Your task to perform on an android device: Show me popular games on the Play Store Image 0: 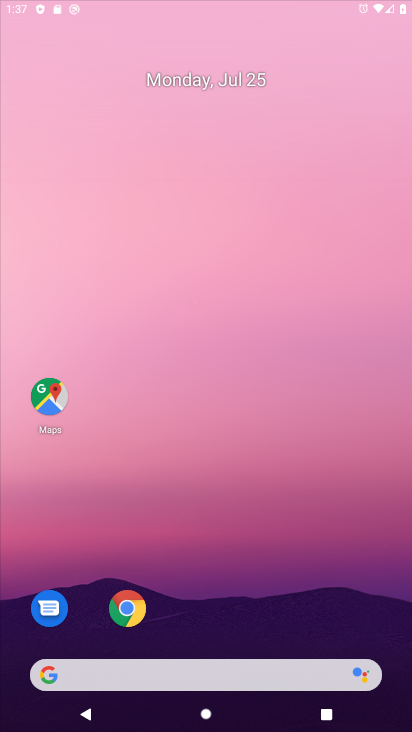
Step 0: drag from (305, 575) to (239, 2)
Your task to perform on an android device: Show me popular games on the Play Store Image 1: 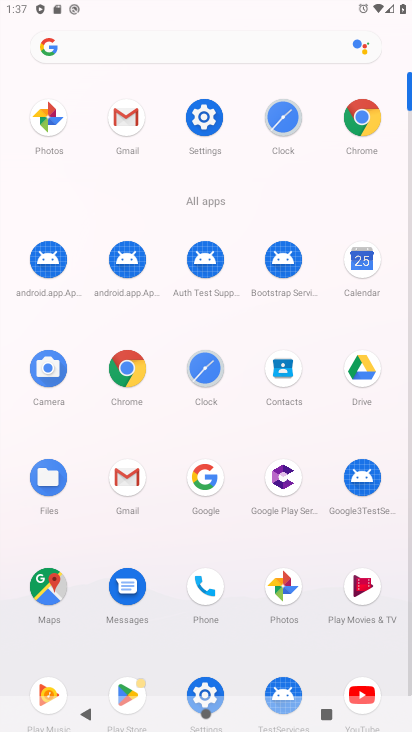
Step 1: click (120, 685)
Your task to perform on an android device: Show me popular games on the Play Store Image 2: 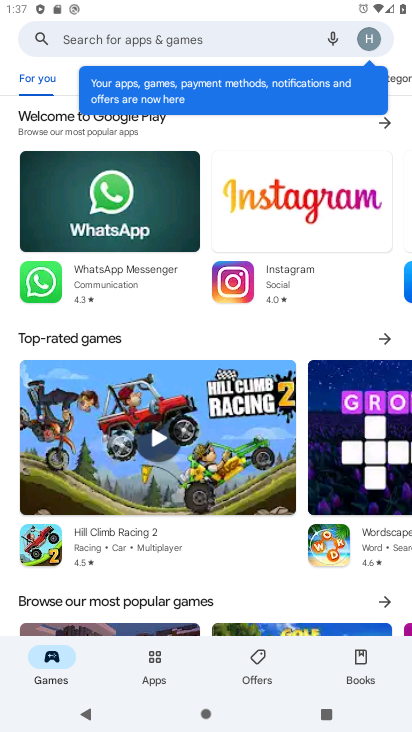
Step 2: drag from (269, 546) to (297, 23)
Your task to perform on an android device: Show me popular games on the Play Store Image 3: 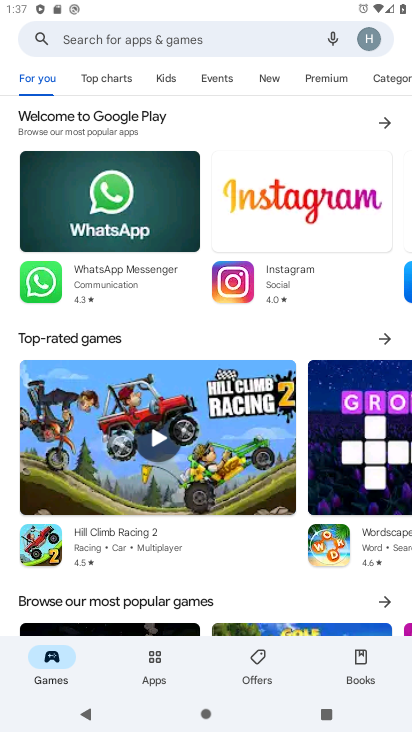
Step 3: drag from (263, 597) to (349, 116)
Your task to perform on an android device: Show me popular games on the Play Store Image 4: 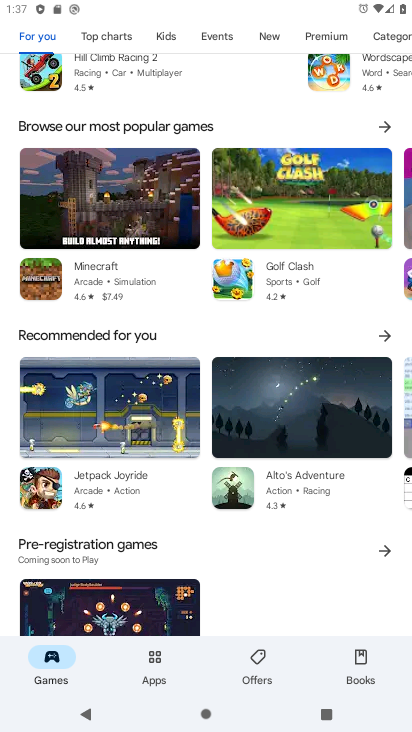
Step 4: drag from (297, 613) to (366, 192)
Your task to perform on an android device: Show me popular games on the Play Store Image 5: 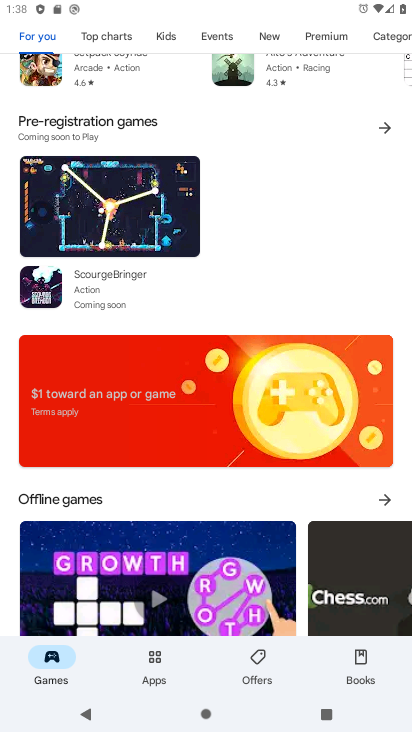
Step 5: drag from (283, 524) to (328, 196)
Your task to perform on an android device: Show me popular games on the Play Store Image 6: 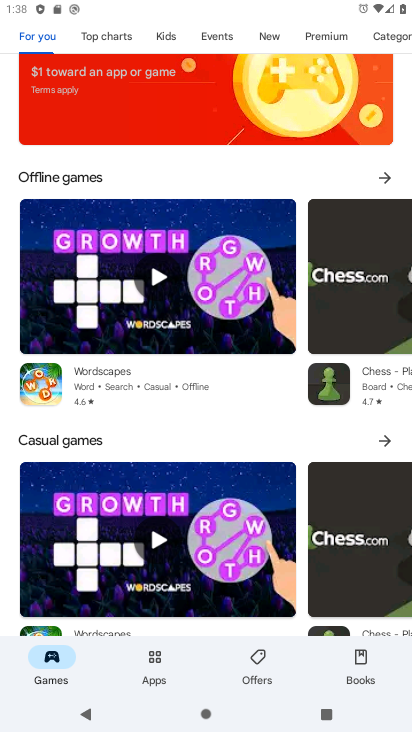
Step 6: drag from (291, 636) to (346, 205)
Your task to perform on an android device: Show me popular games on the Play Store Image 7: 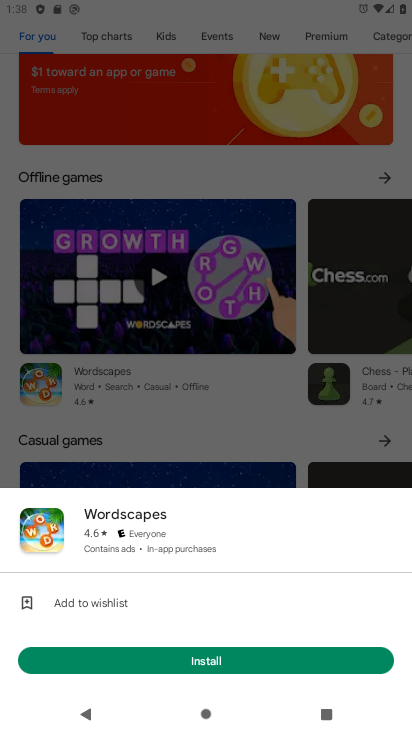
Step 7: click (309, 183)
Your task to perform on an android device: Show me popular games on the Play Store Image 8: 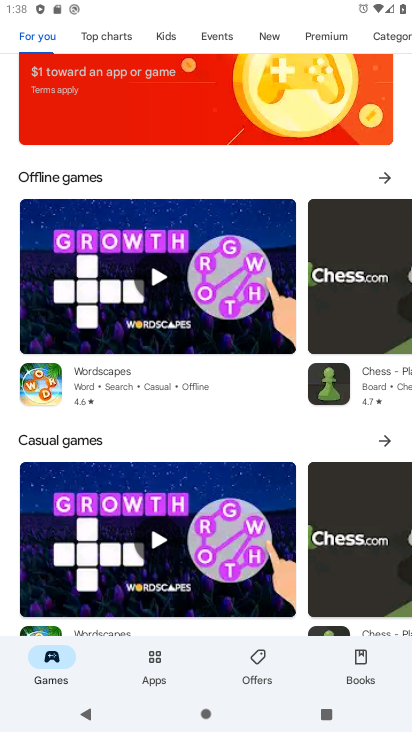
Step 8: drag from (289, 626) to (346, 92)
Your task to perform on an android device: Show me popular games on the Play Store Image 9: 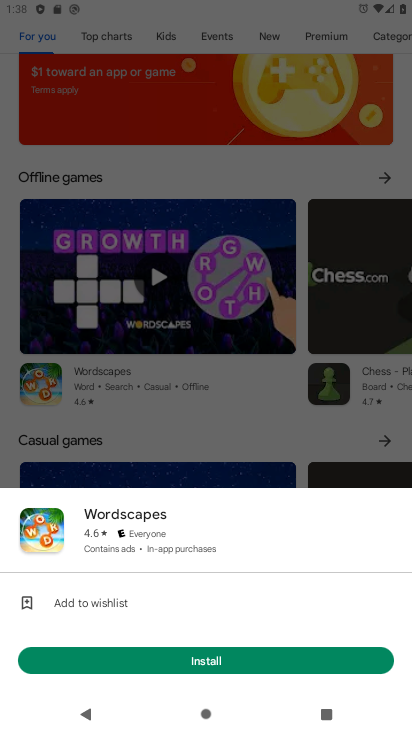
Step 9: click (277, 184)
Your task to perform on an android device: Show me popular games on the Play Store Image 10: 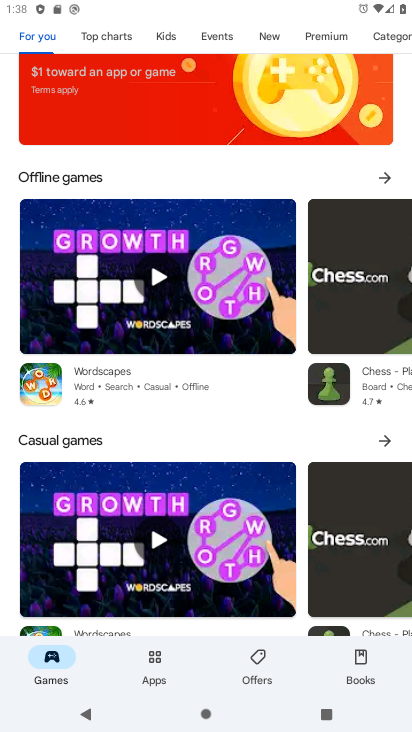
Step 10: task complete